Your task to perform on an android device: move a message to another label in the gmail app Image 0: 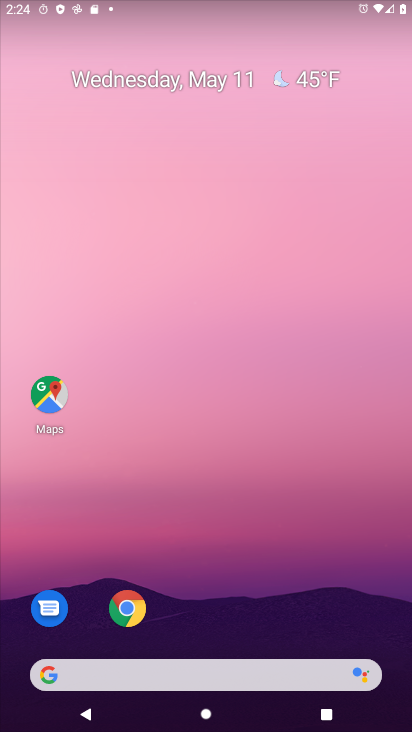
Step 0: drag from (227, 622) to (170, 94)
Your task to perform on an android device: move a message to another label in the gmail app Image 1: 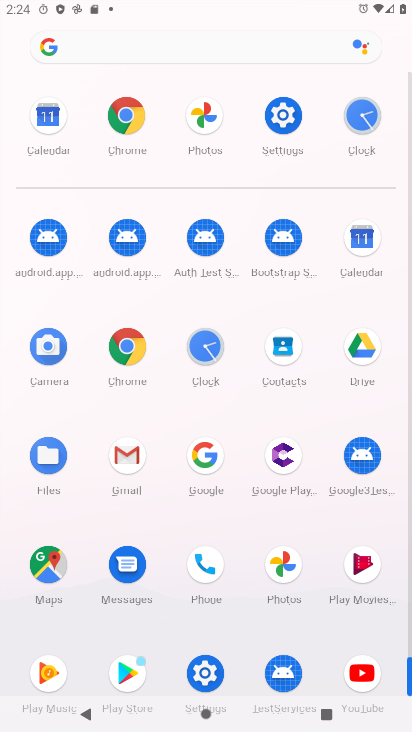
Step 1: click (119, 452)
Your task to perform on an android device: move a message to another label in the gmail app Image 2: 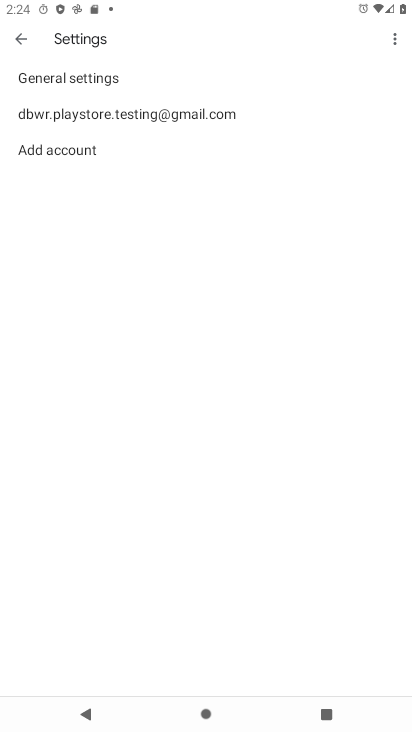
Step 2: click (98, 115)
Your task to perform on an android device: move a message to another label in the gmail app Image 3: 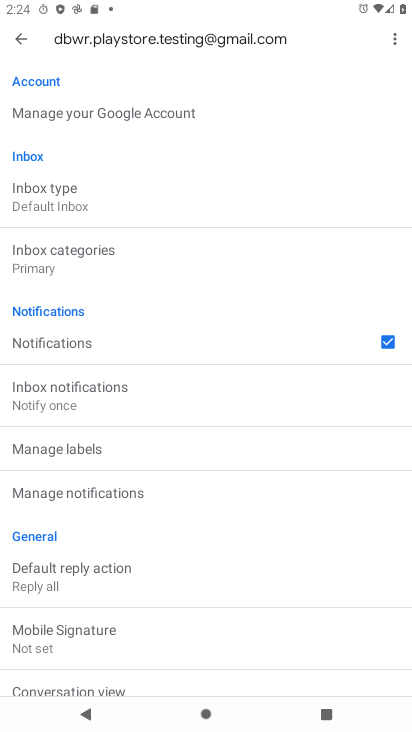
Step 3: click (389, 168)
Your task to perform on an android device: move a message to another label in the gmail app Image 4: 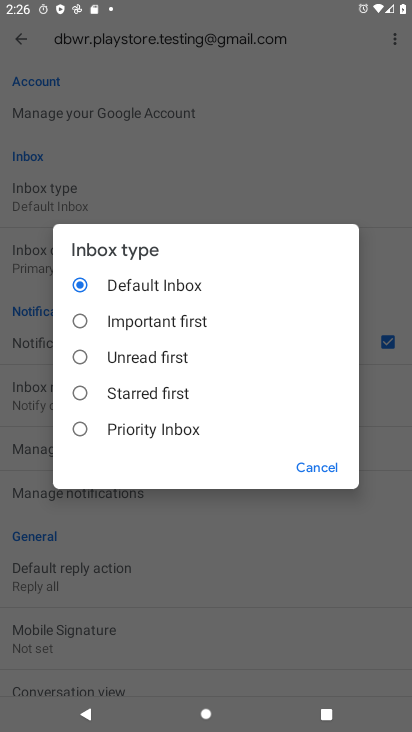
Step 4: task complete